Your task to perform on an android device: Do I have any events today? Image 0: 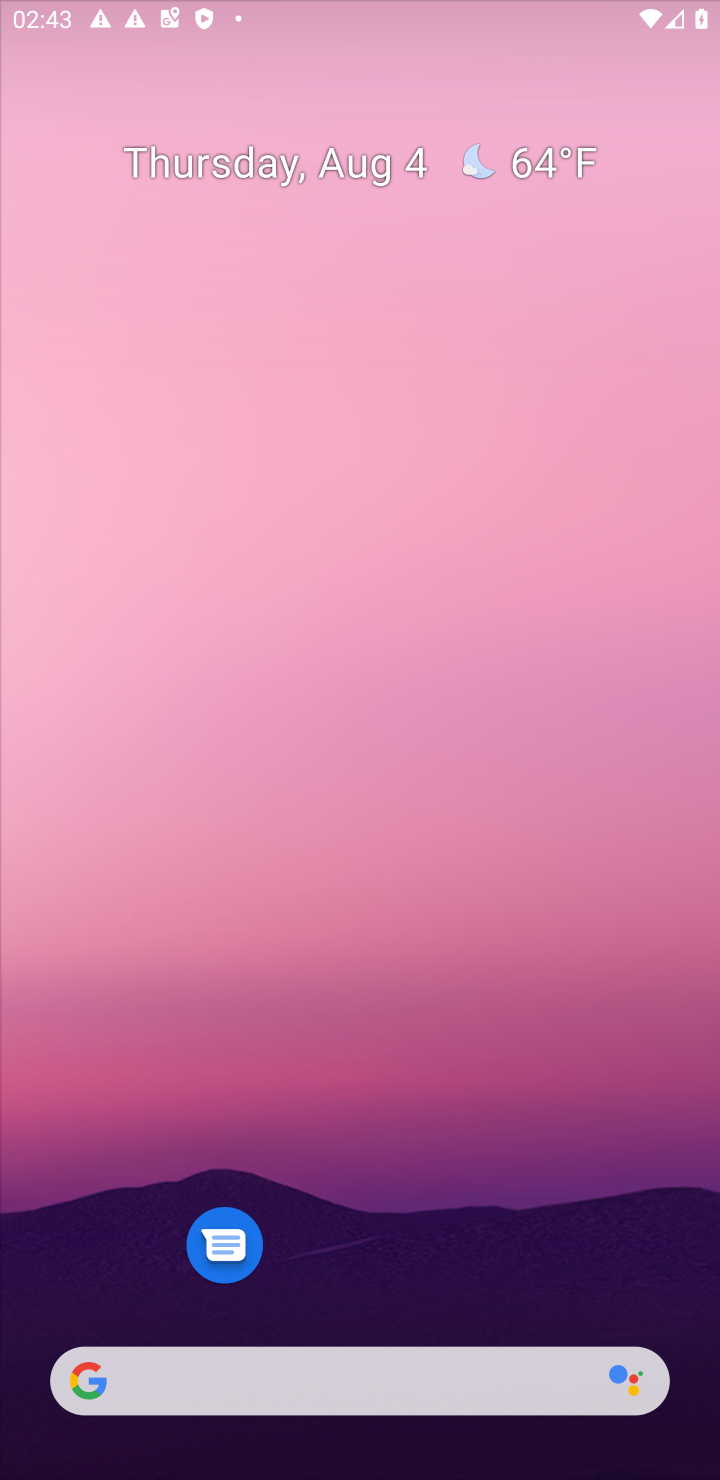
Step 0: press home button
Your task to perform on an android device: Do I have any events today? Image 1: 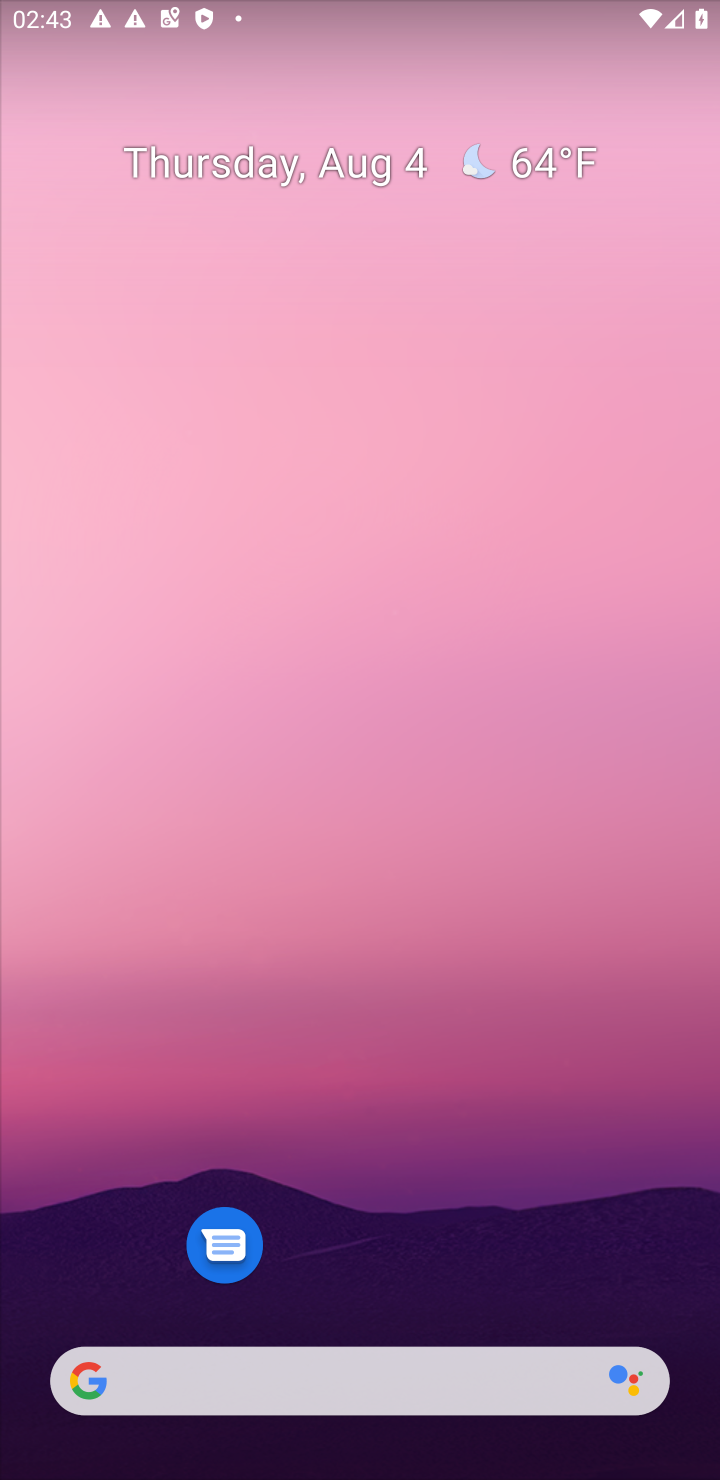
Step 1: drag from (332, 1255) to (440, 130)
Your task to perform on an android device: Do I have any events today? Image 2: 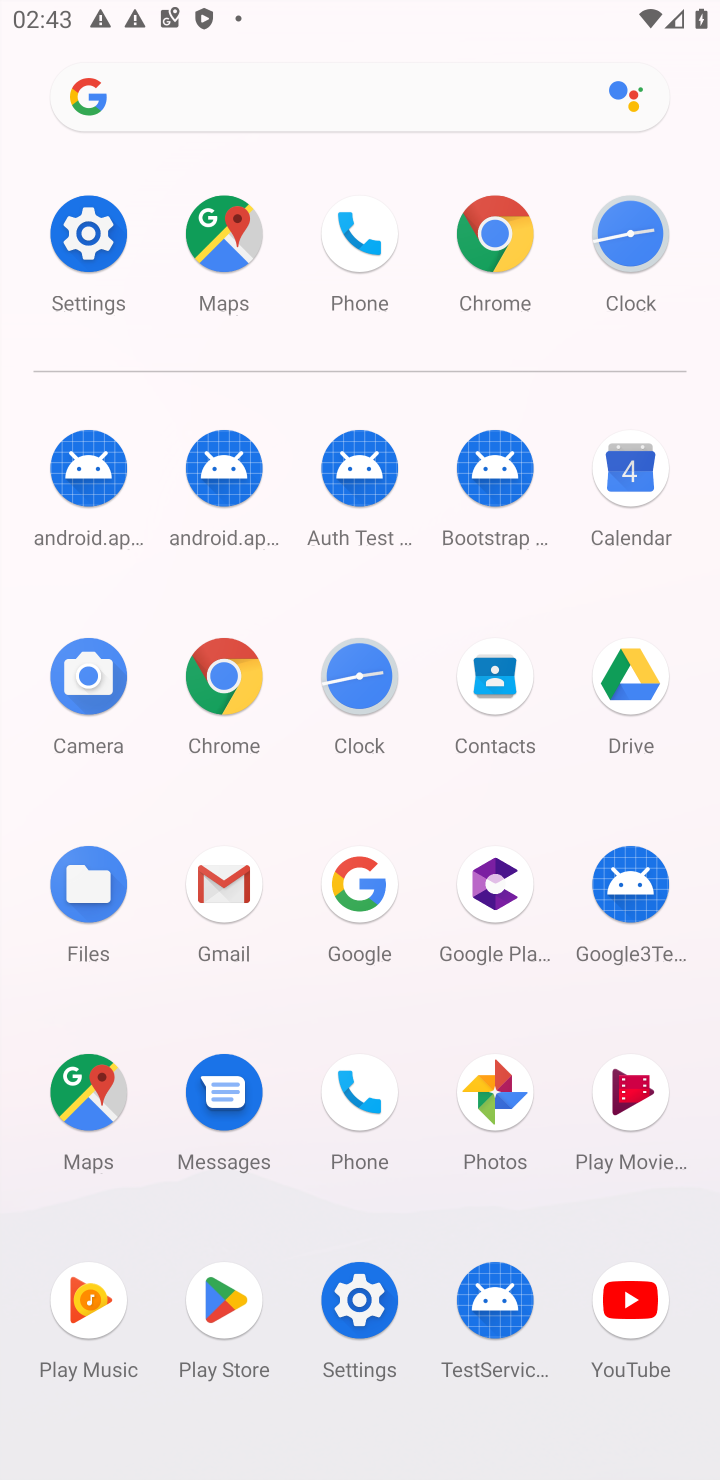
Step 2: click (652, 450)
Your task to perform on an android device: Do I have any events today? Image 3: 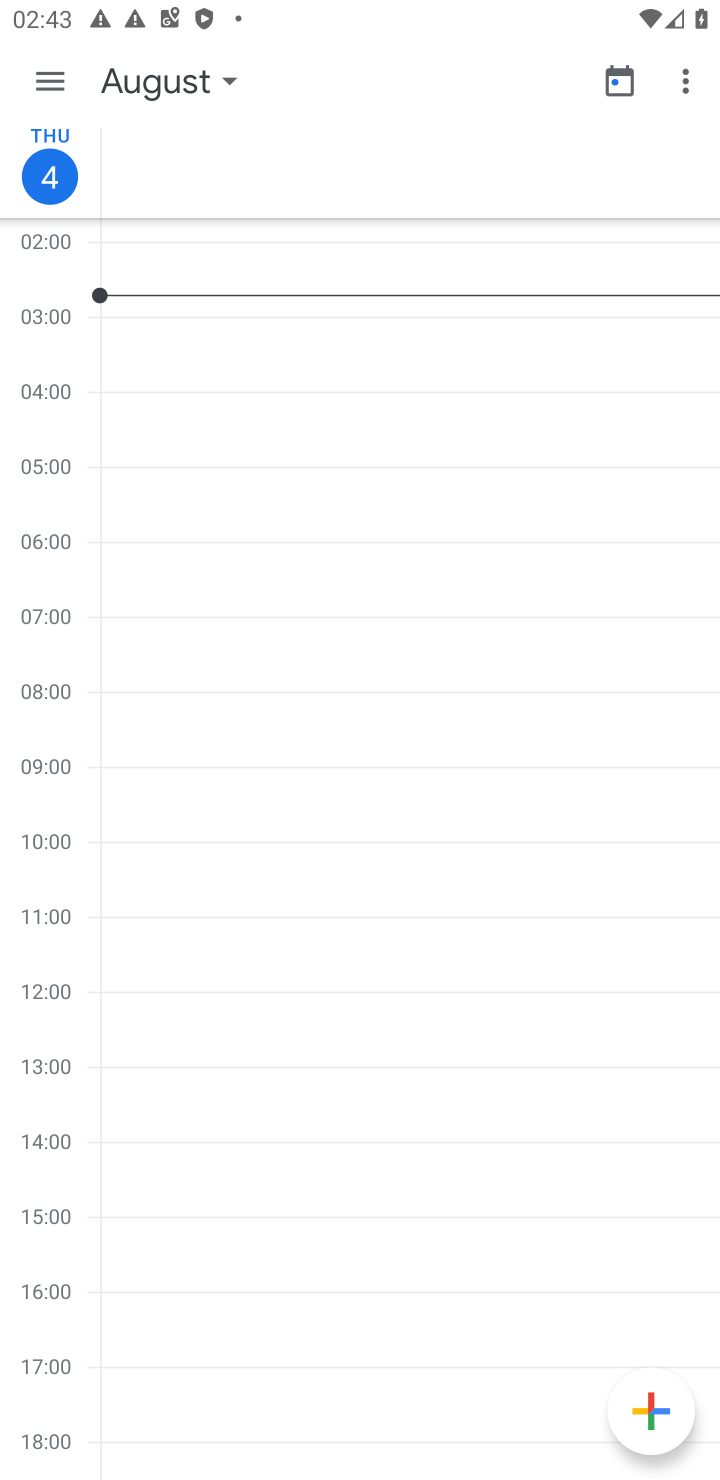
Step 3: task complete